Your task to perform on an android device: Open Wikipedia Image 0: 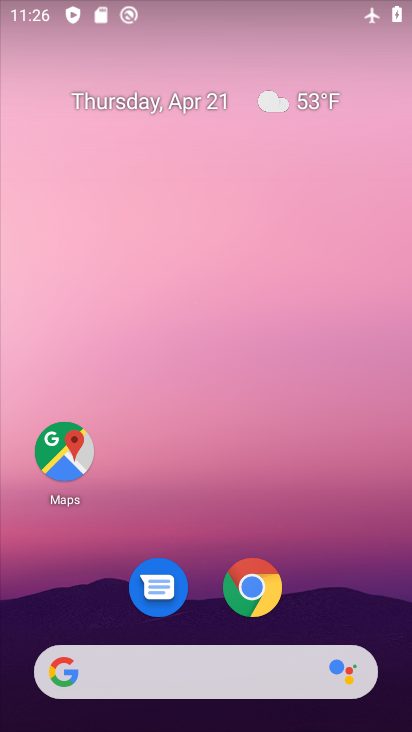
Step 0: click (257, 575)
Your task to perform on an android device: Open Wikipedia Image 1: 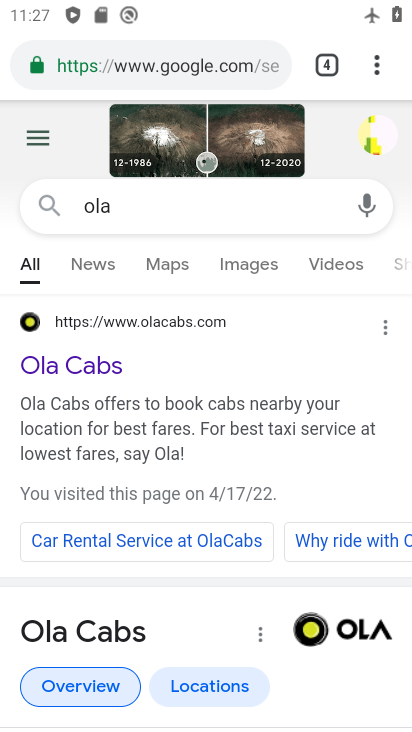
Step 1: click (322, 60)
Your task to perform on an android device: Open Wikipedia Image 2: 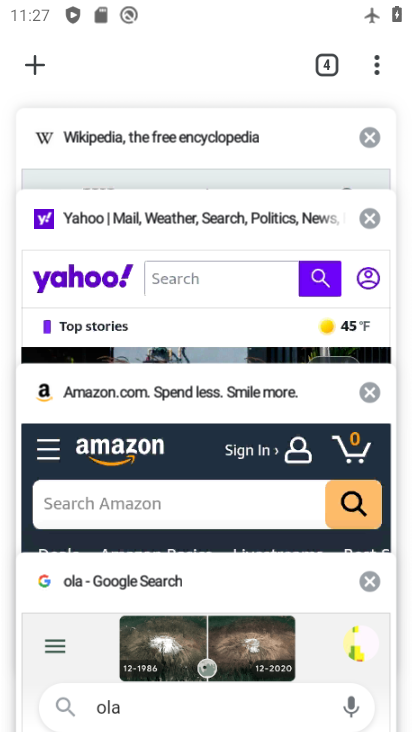
Step 2: click (112, 133)
Your task to perform on an android device: Open Wikipedia Image 3: 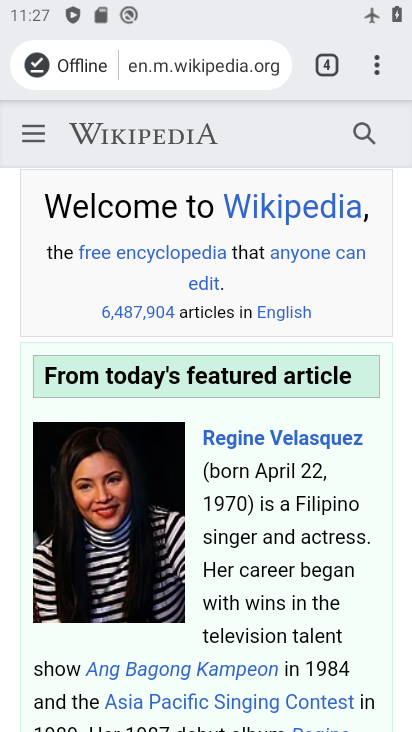
Step 3: task complete